Your task to perform on an android device: Show me popular games on the Play Store Image 0: 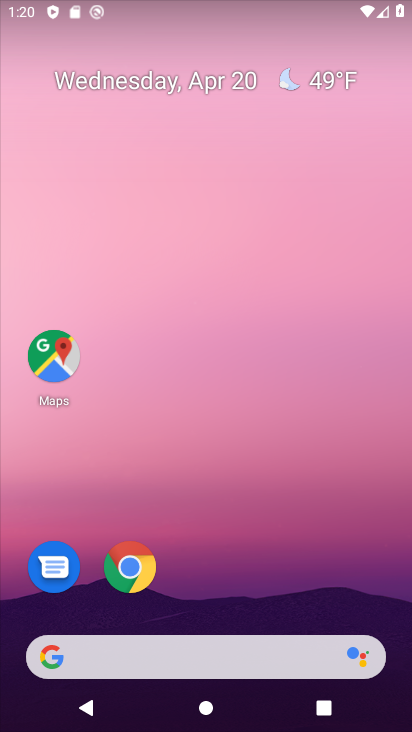
Step 0: click (138, 576)
Your task to perform on an android device: Show me popular games on the Play Store Image 1: 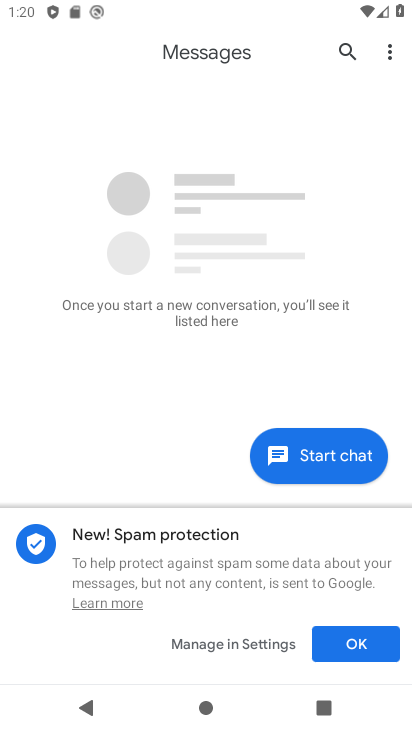
Step 1: press home button
Your task to perform on an android device: Show me popular games on the Play Store Image 2: 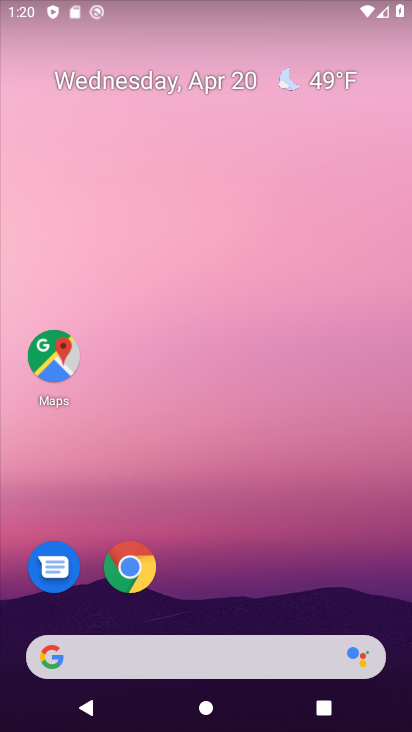
Step 2: drag from (295, 612) to (308, 142)
Your task to perform on an android device: Show me popular games on the Play Store Image 3: 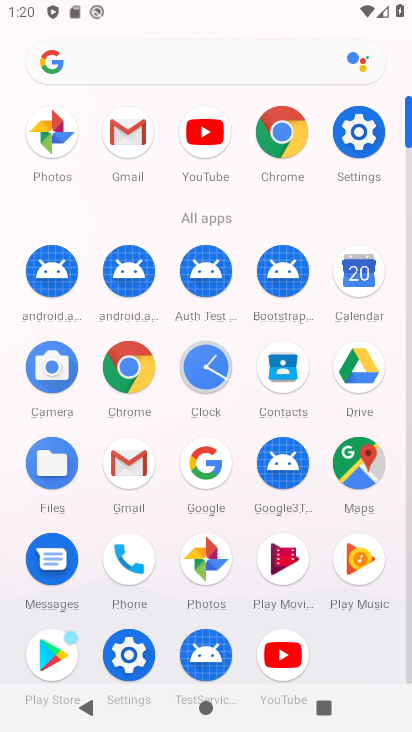
Step 3: click (47, 655)
Your task to perform on an android device: Show me popular games on the Play Store Image 4: 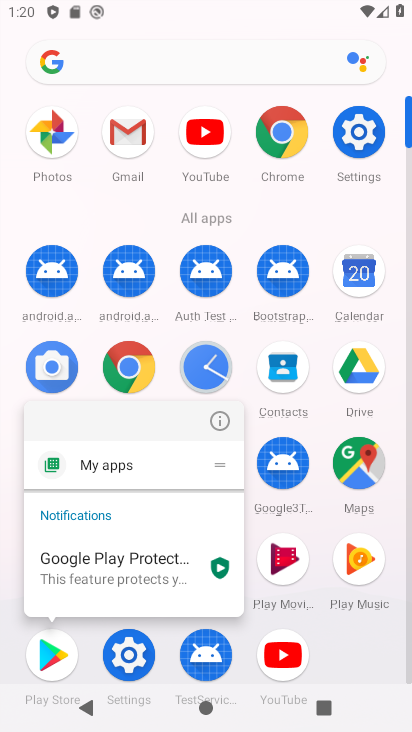
Step 4: click (61, 649)
Your task to perform on an android device: Show me popular games on the Play Store Image 5: 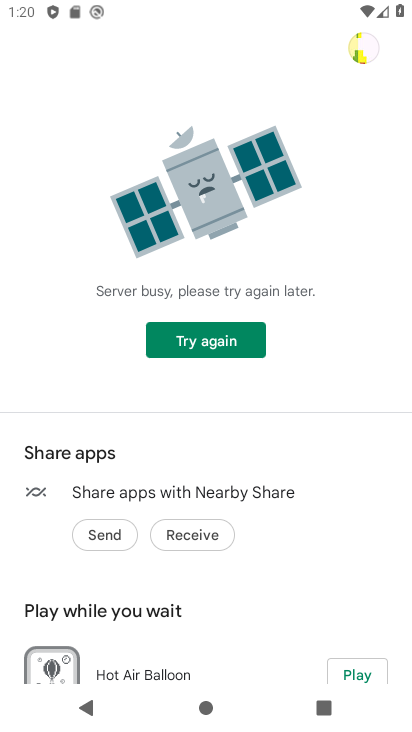
Step 5: click (224, 343)
Your task to perform on an android device: Show me popular games on the Play Store Image 6: 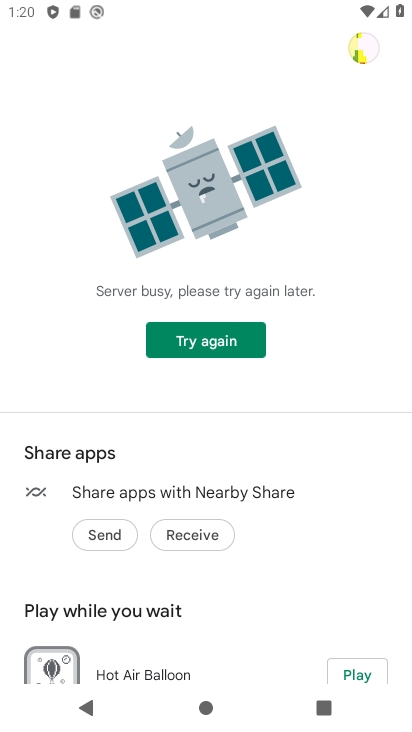
Step 6: task complete